Your task to perform on an android device: Open ESPN.com Image 0: 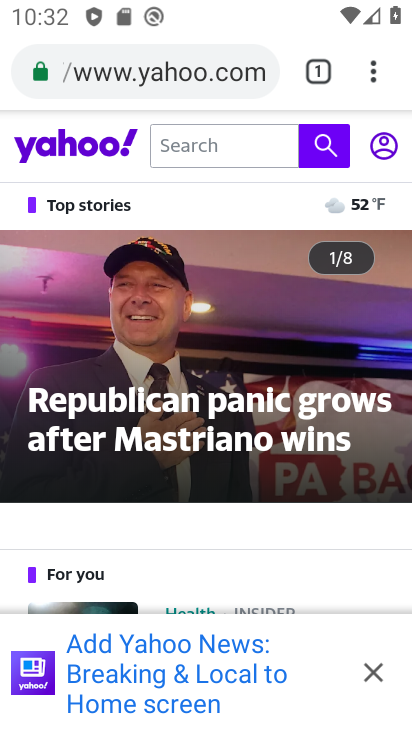
Step 0: click (221, 62)
Your task to perform on an android device: Open ESPN.com Image 1: 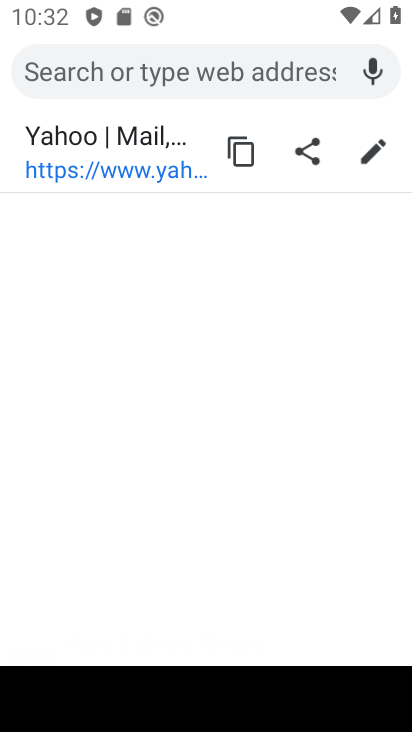
Step 1: type "espn.con"
Your task to perform on an android device: Open ESPN.com Image 2: 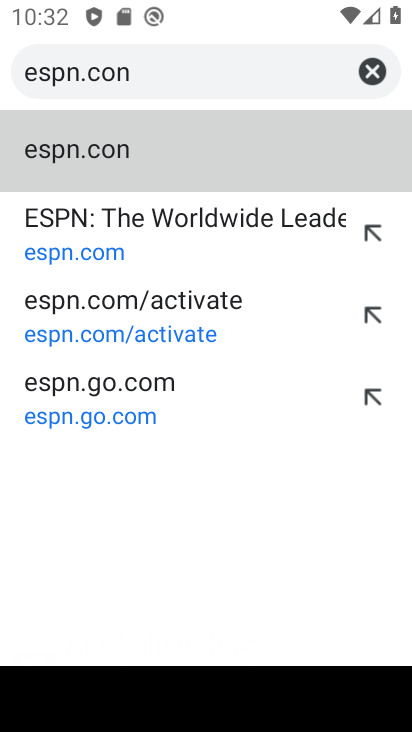
Step 2: click (58, 253)
Your task to perform on an android device: Open ESPN.com Image 3: 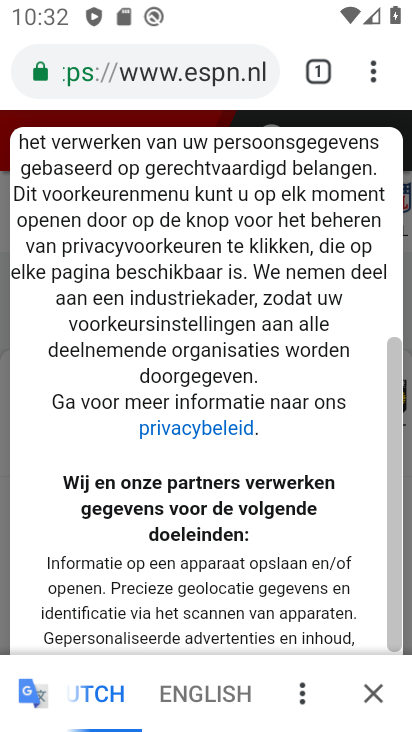
Step 3: task complete